Your task to perform on an android device: turn off notifications settings in the gmail app Image 0: 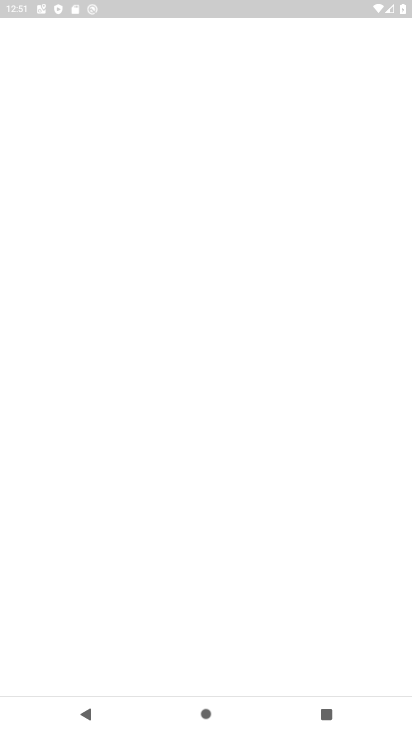
Step 0: drag from (354, 614) to (357, 131)
Your task to perform on an android device: turn off notifications settings in the gmail app Image 1: 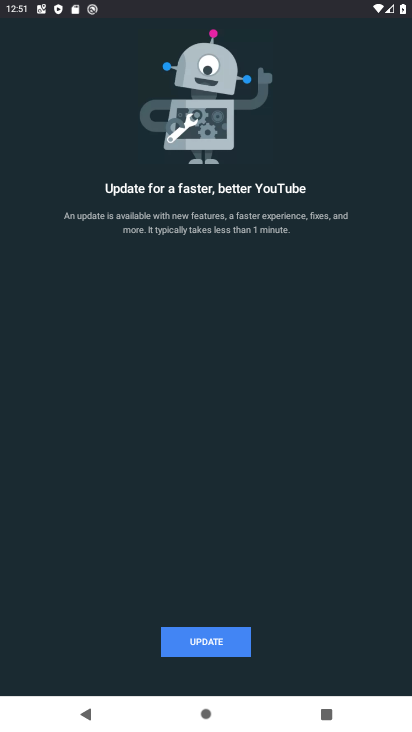
Step 1: press home button
Your task to perform on an android device: turn off notifications settings in the gmail app Image 2: 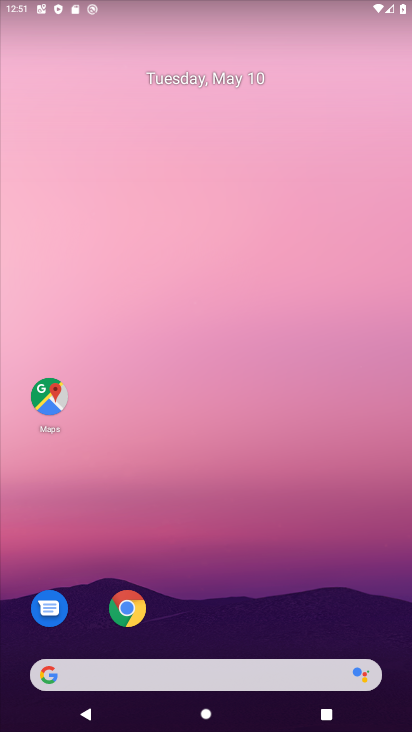
Step 2: drag from (383, 630) to (343, 177)
Your task to perform on an android device: turn off notifications settings in the gmail app Image 3: 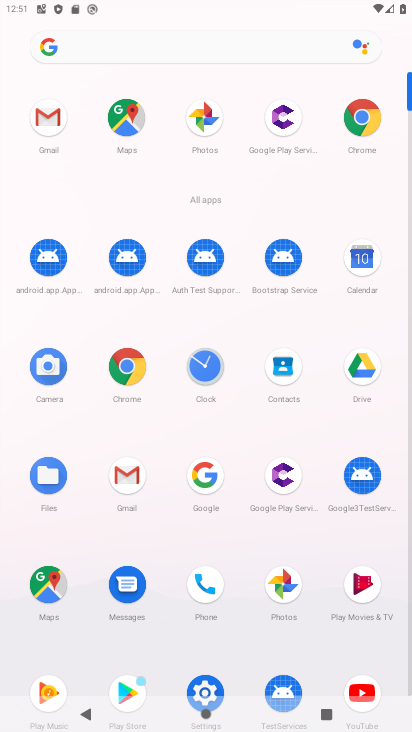
Step 3: click (133, 483)
Your task to perform on an android device: turn off notifications settings in the gmail app Image 4: 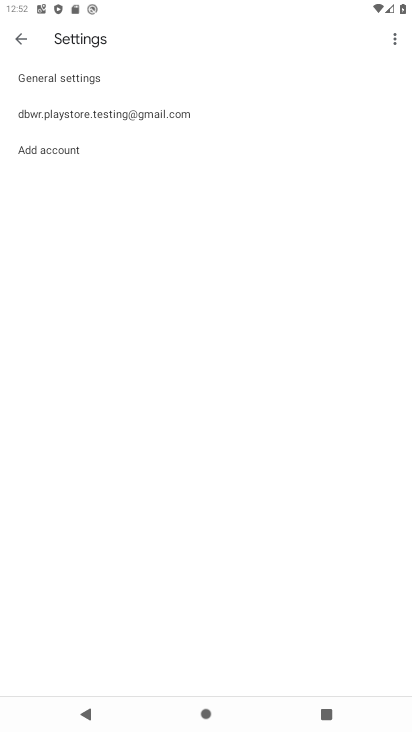
Step 4: click (169, 119)
Your task to perform on an android device: turn off notifications settings in the gmail app Image 5: 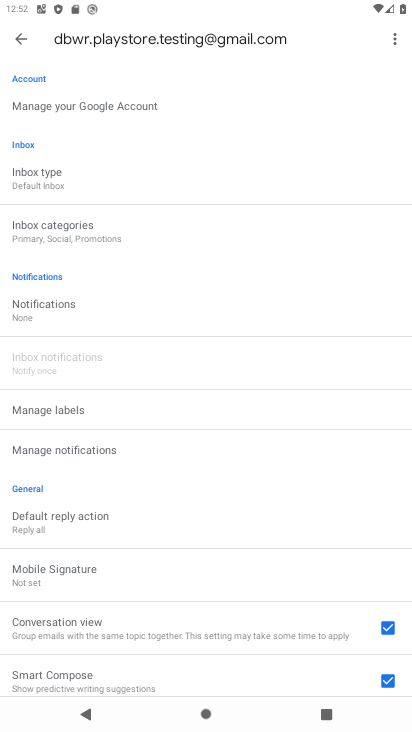
Step 5: click (55, 303)
Your task to perform on an android device: turn off notifications settings in the gmail app Image 6: 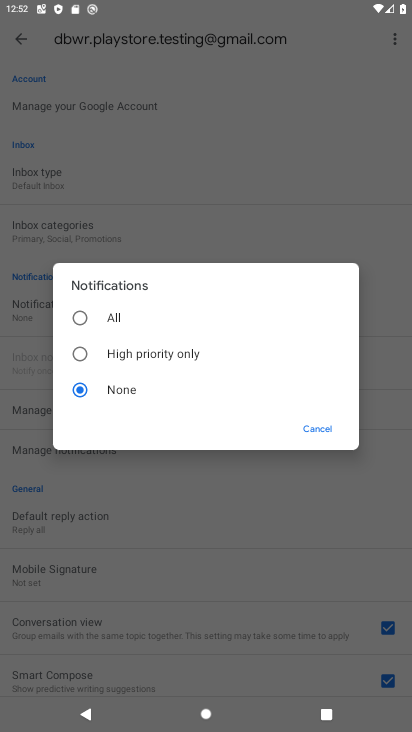
Step 6: task complete